Your task to perform on an android device: Show me popular videos on Youtube Image 0: 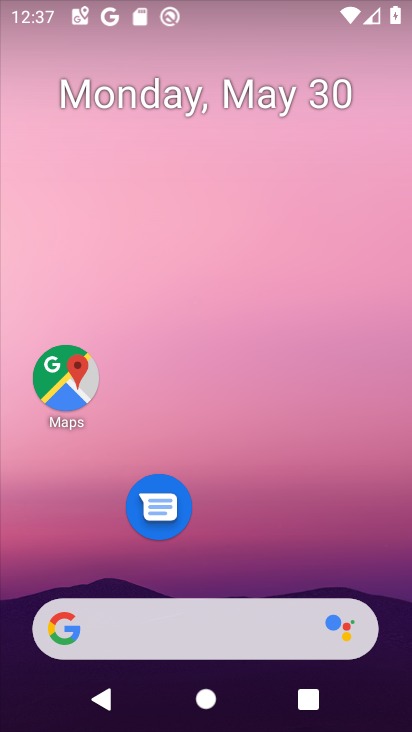
Step 0: drag from (255, 497) to (268, 78)
Your task to perform on an android device: Show me popular videos on Youtube Image 1: 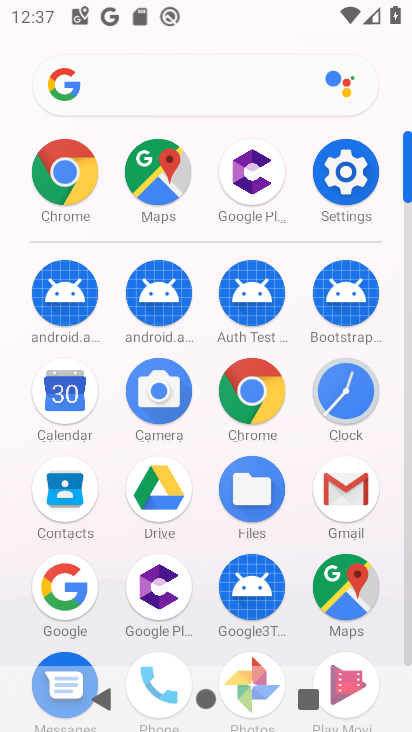
Step 1: drag from (206, 252) to (232, 33)
Your task to perform on an android device: Show me popular videos on Youtube Image 2: 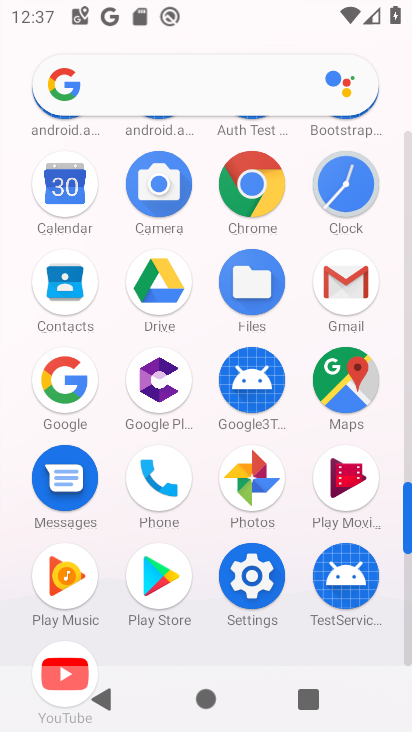
Step 2: drag from (202, 192) to (202, 31)
Your task to perform on an android device: Show me popular videos on Youtube Image 3: 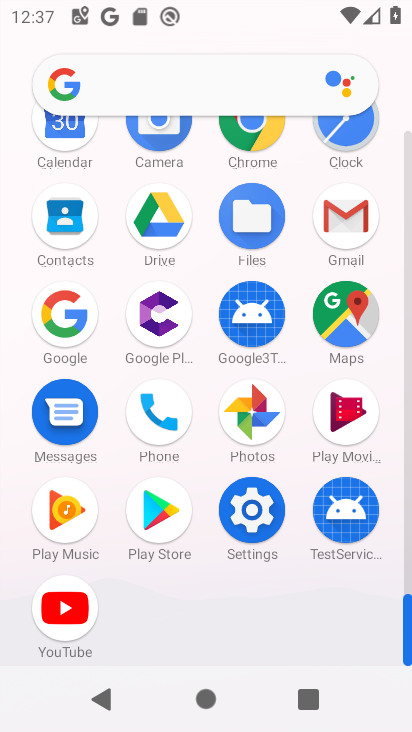
Step 3: click (55, 604)
Your task to perform on an android device: Show me popular videos on Youtube Image 4: 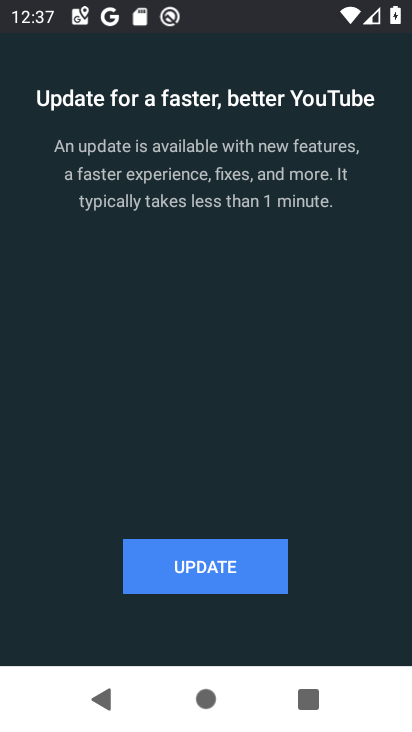
Step 4: click (222, 553)
Your task to perform on an android device: Show me popular videos on Youtube Image 5: 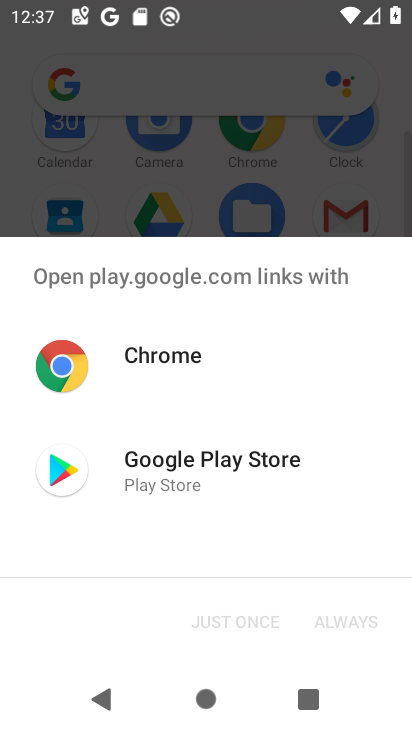
Step 5: click (178, 452)
Your task to perform on an android device: Show me popular videos on Youtube Image 6: 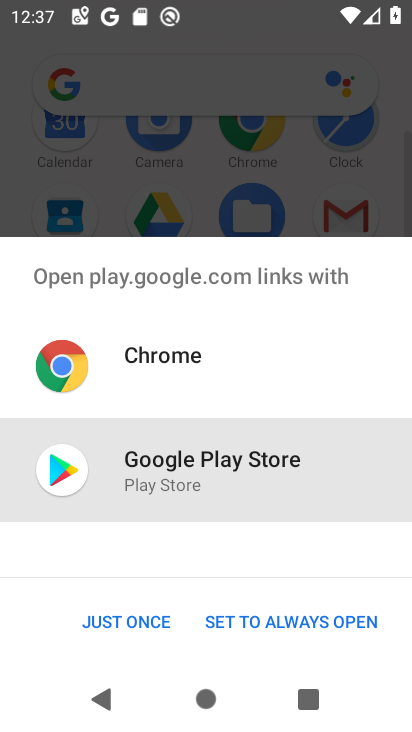
Step 6: click (134, 616)
Your task to perform on an android device: Show me popular videos on Youtube Image 7: 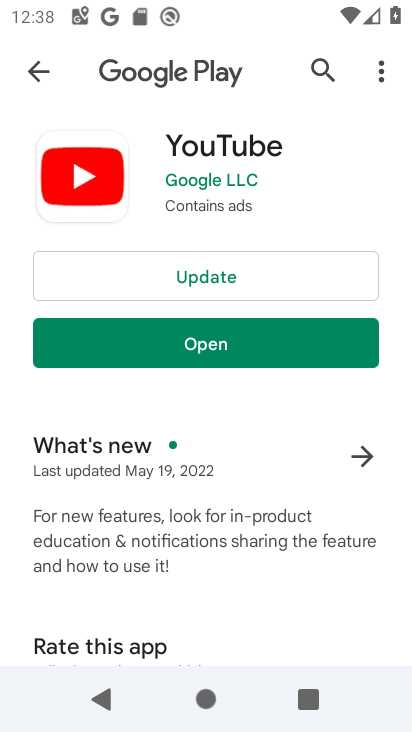
Step 7: click (150, 277)
Your task to perform on an android device: Show me popular videos on Youtube Image 8: 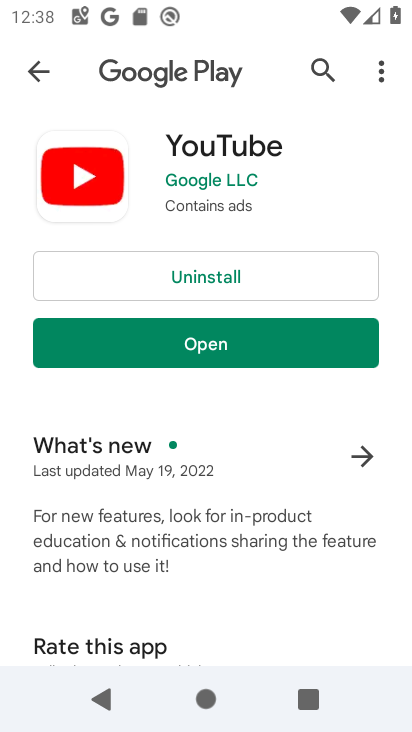
Step 8: click (213, 339)
Your task to perform on an android device: Show me popular videos on Youtube Image 9: 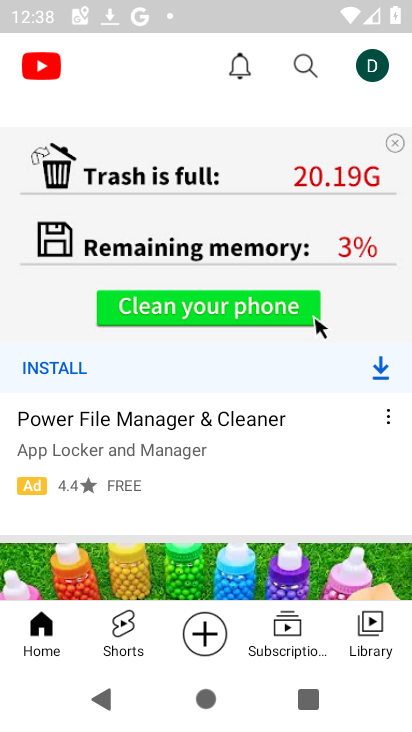
Step 9: click (306, 69)
Your task to perform on an android device: Show me popular videos on Youtube Image 10: 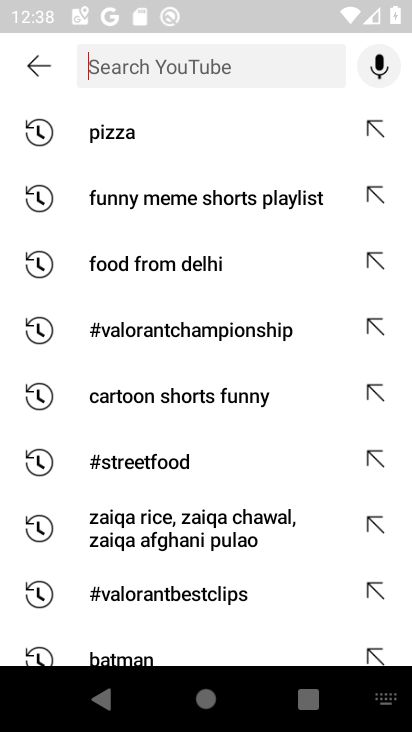
Step 10: type " popular videos"
Your task to perform on an android device: Show me popular videos on Youtube Image 11: 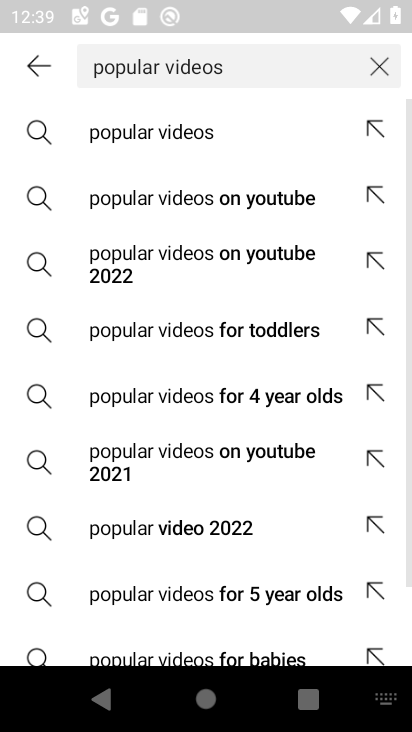
Step 11: click (168, 139)
Your task to perform on an android device: Show me popular videos on Youtube Image 12: 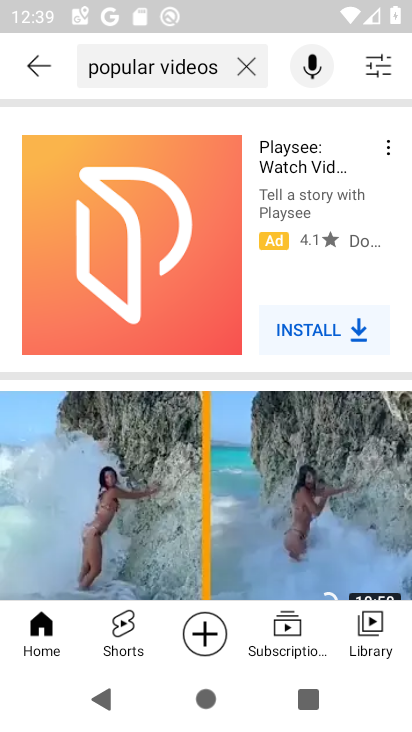
Step 12: task complete